Your task to perform on an android device: turn on javascript in the chrome app Image 0: 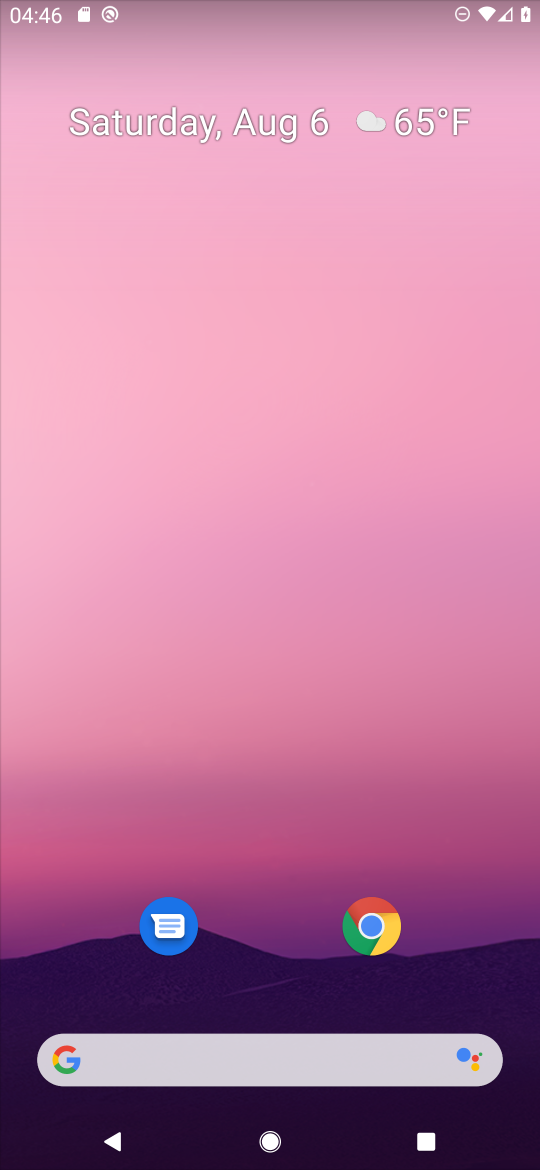
Step 0: click (389, 906)
Your task to perform on an android device: turn on javascript in the chrome app Image 1: 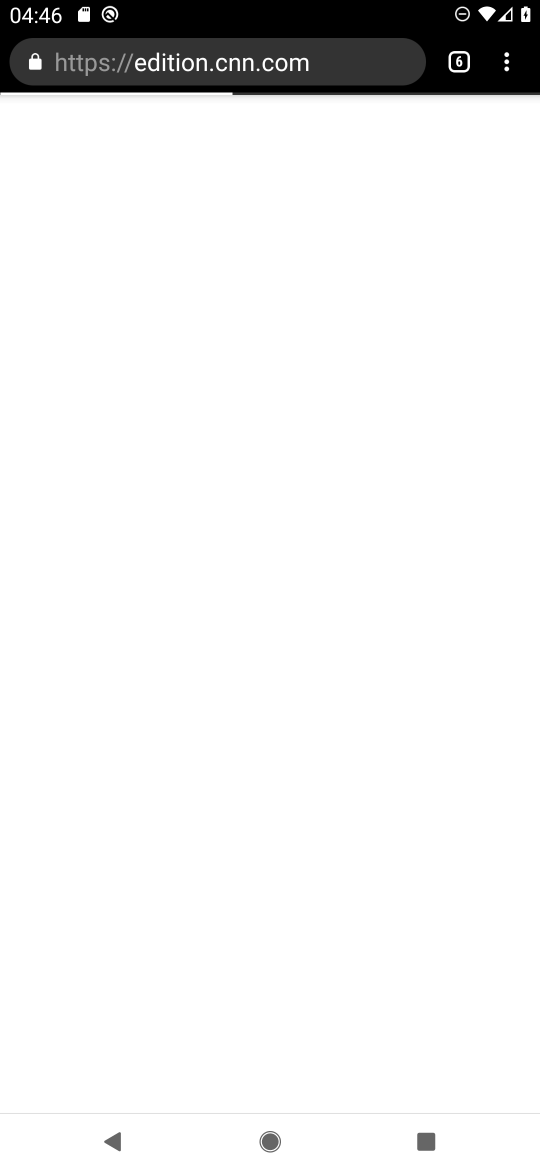
Step 1: drag from (510, 76) to (340, 699)
Your task to perform on an android device: turn on javascript in the chrome app Image 2: 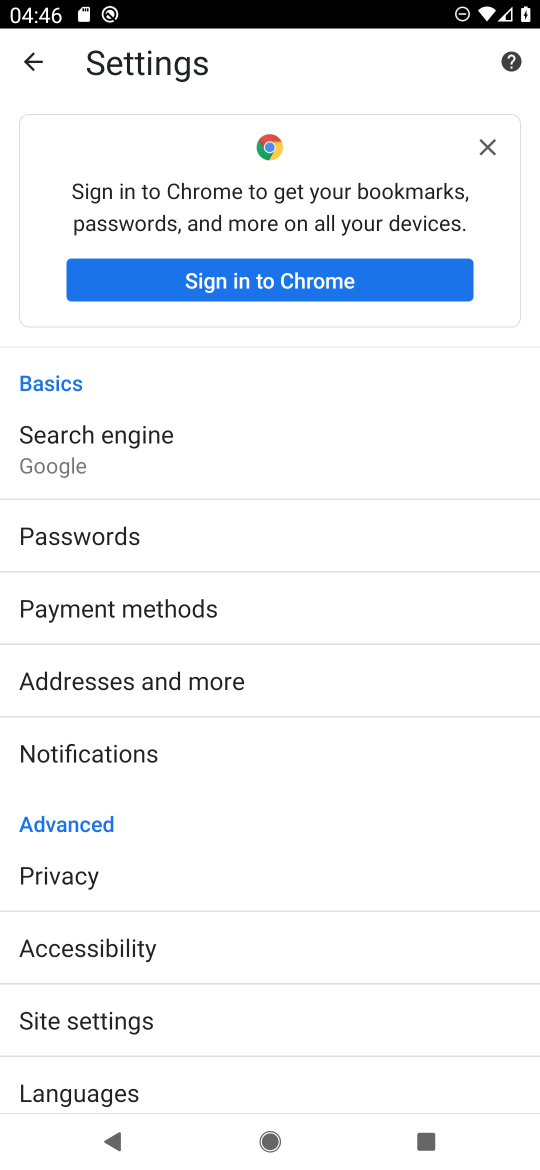
Step 2: click (179, 1007)
Your task to perform on an android device: turn on javascript in the chrome app Image 3: 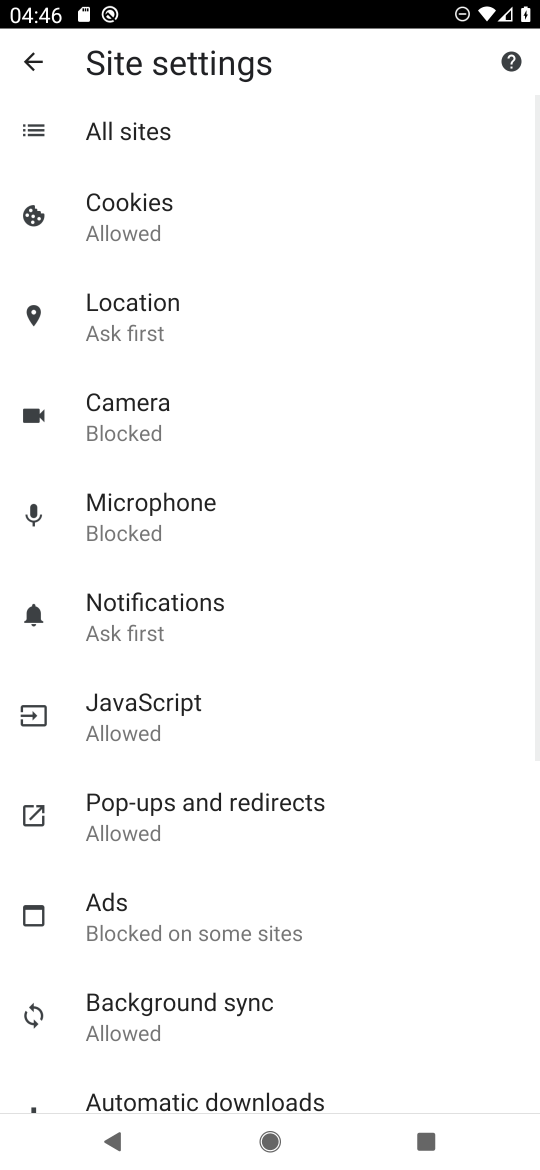
Step 3: click (184, 730)
Your task to perform on an android device: turn on javascript in the chrome app Image 4: 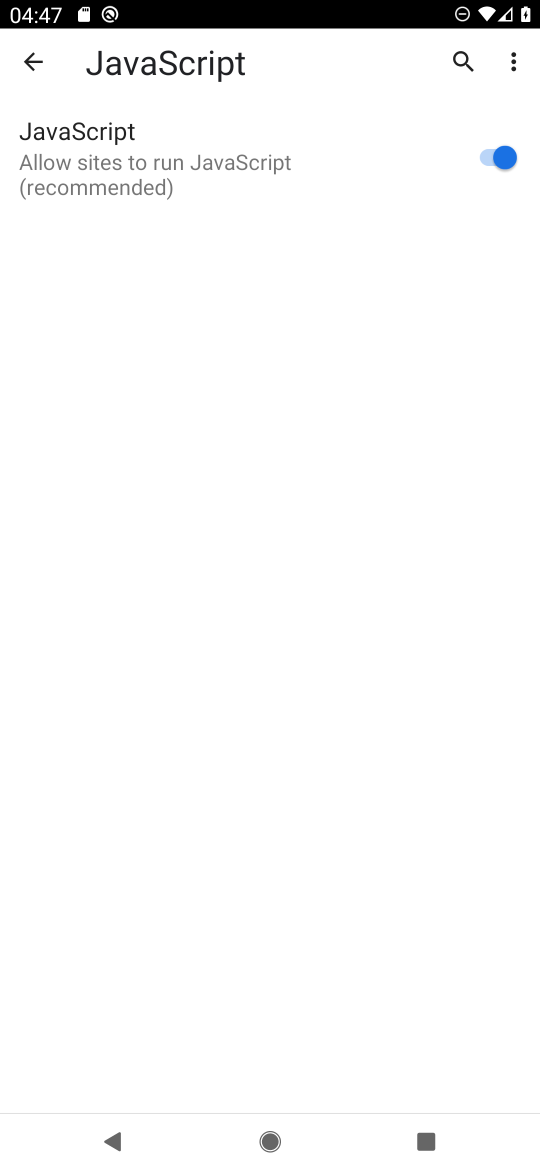
Step 4: task complete